Your task to perform on an android device: check the backup settings in the google photos Image 0: 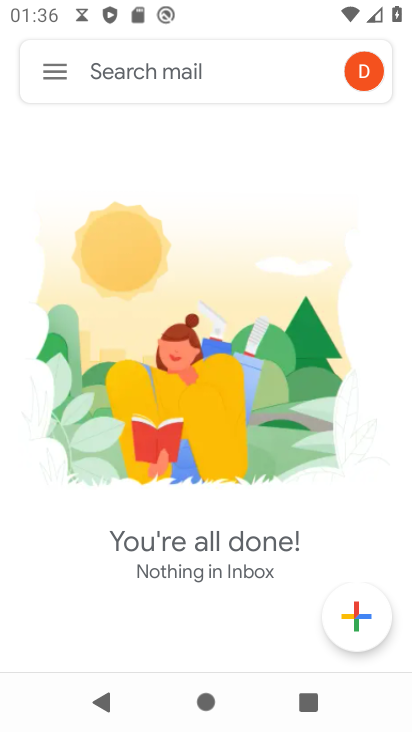
Step 0: press home button
Your task to perform on an android device: check the backup settings in the google photos Image 1: 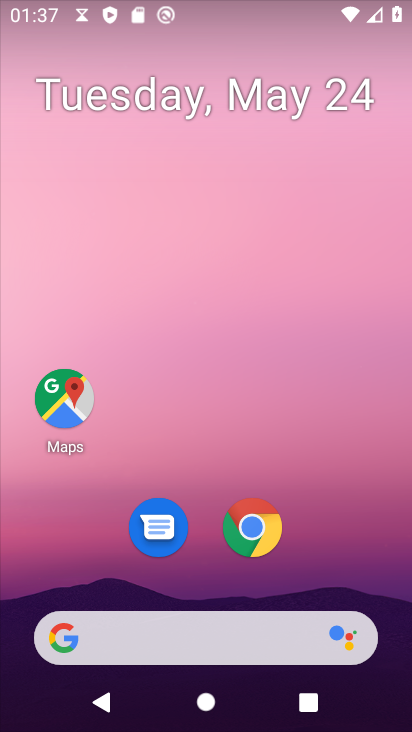
Step 1: drag from (193, 581) to (305, 195)
Your task to perform on an android device: check the backup settings in the google photos Image 2: 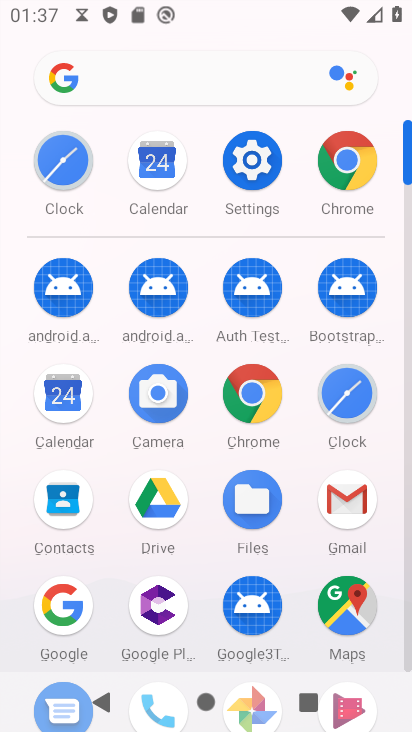
Step 2: drag from (226, 622) to (350, 304)
Your task to perform on an android device: check the backup settings in the google photos Image 3: 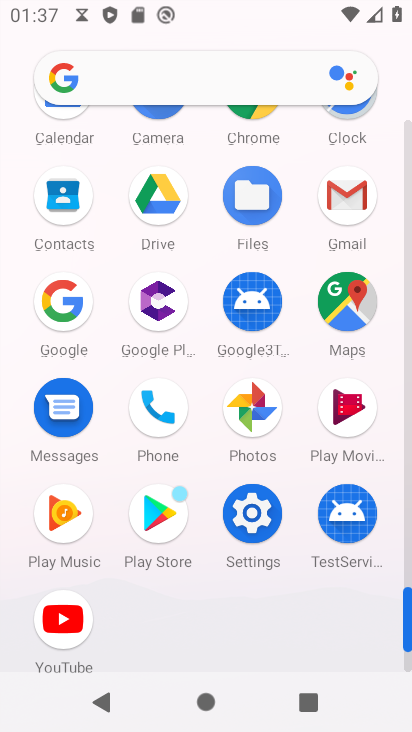
Step 3: click (264, 411)
Your task to perform on an android device: check the backup settings in the google photos Image 4: 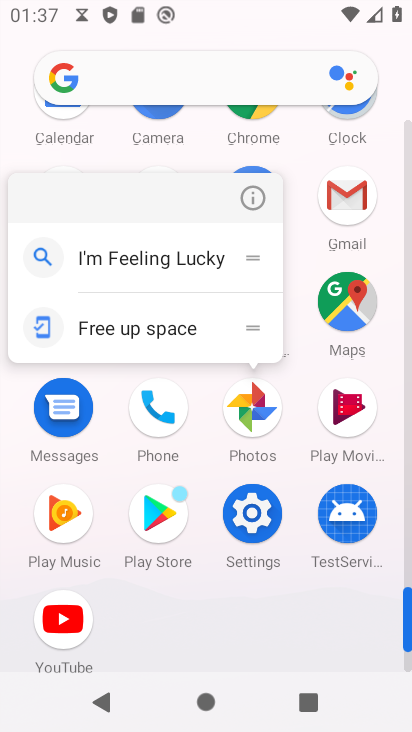
Step 4: click (257, 417)
Your task to perform on an android device: check the backup settings in the google photos Image 5: 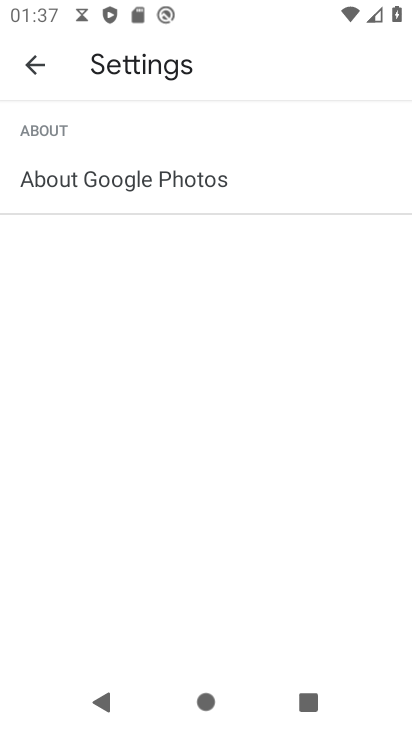
Step 5: click (43, 63)
Your task to perform on an android device: check the backup settings in the google photos Image 6: 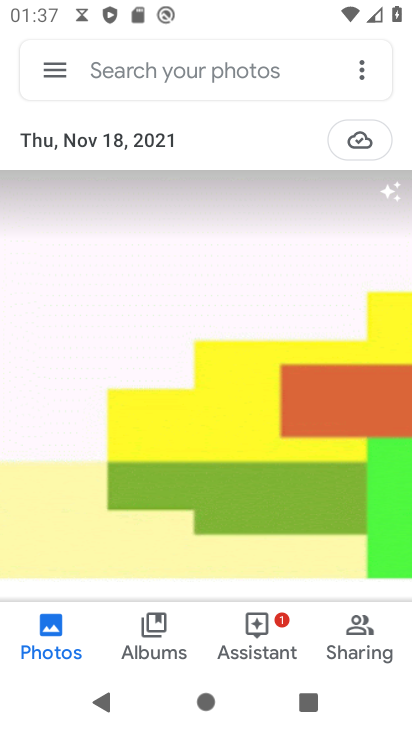
Step 6: click (55, 69)
Your task to perform on an android device: check the backup settings in the google photos Image 7: 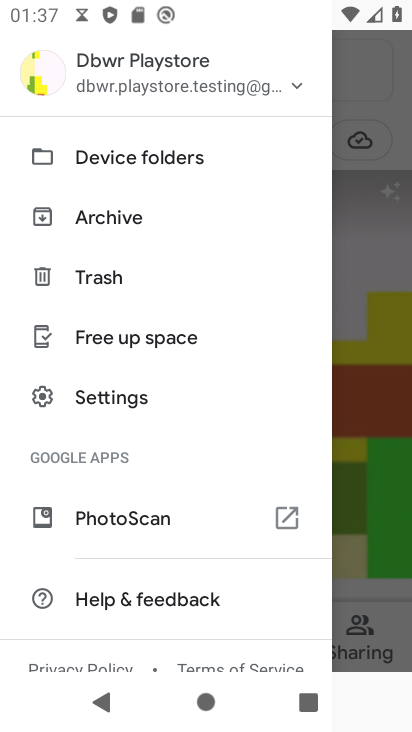
Step 7: click (124, 394)
Your task to perform on an android device: check the backup settings in the google photos Image 8: 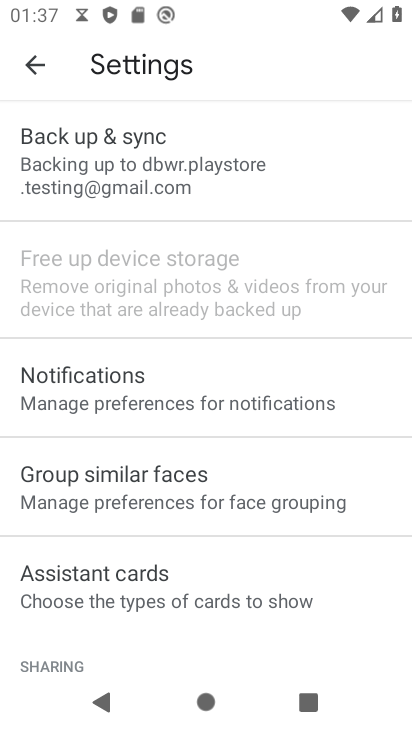
Step 8: click (158, 158)
Your task to perform on an android device: check the backup settings in the google photos Image 9: 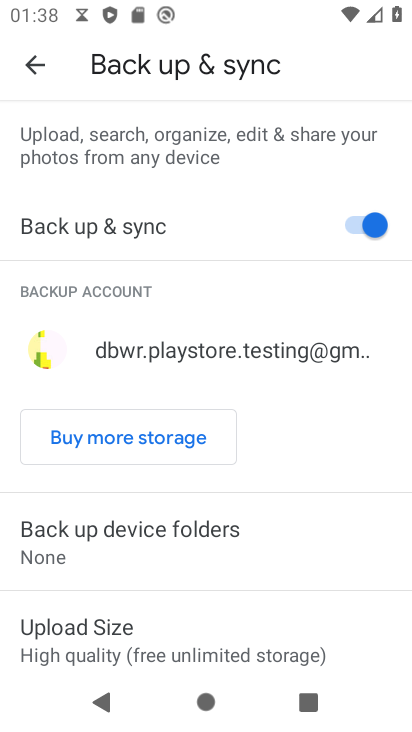
Step 9: task complete